Your task to perform on an android device: turn off picture-in-picture Image 0: 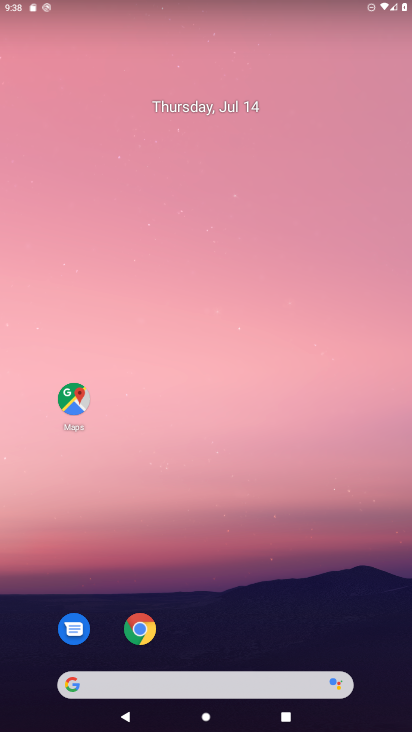
Step 0: drag from (256, 645) to (294, 67)
Your task to perform on an android device: turn off picture-in-picture Image 1: 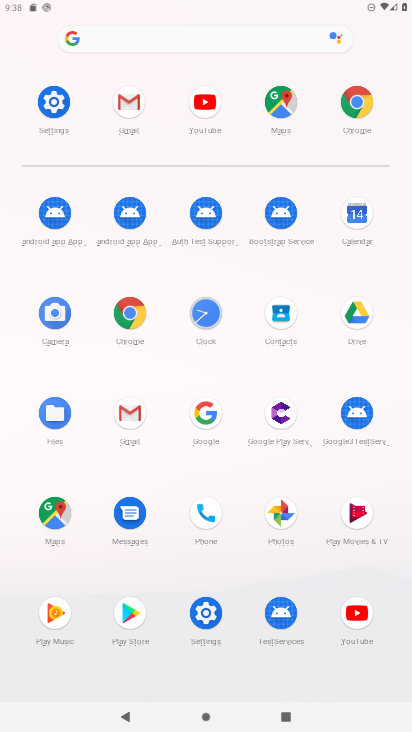
Step 1: click (139, 303)
Your task to perform on an android device: turn off picture-in-picture Image 2: 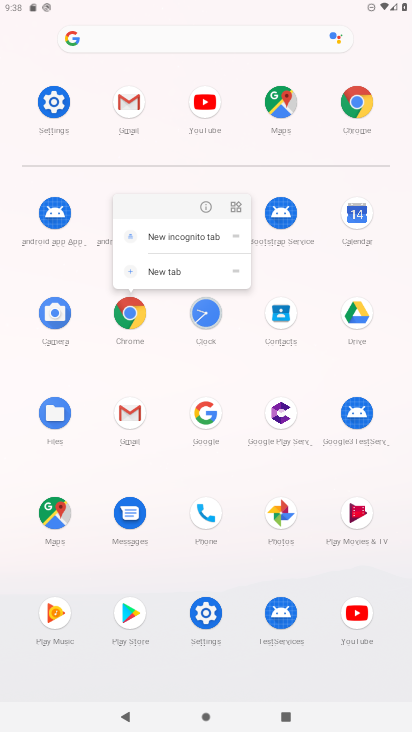
Step 2: click (206, 199)
Your task to perform on an android device: turn off picture-in-picture Image 3: 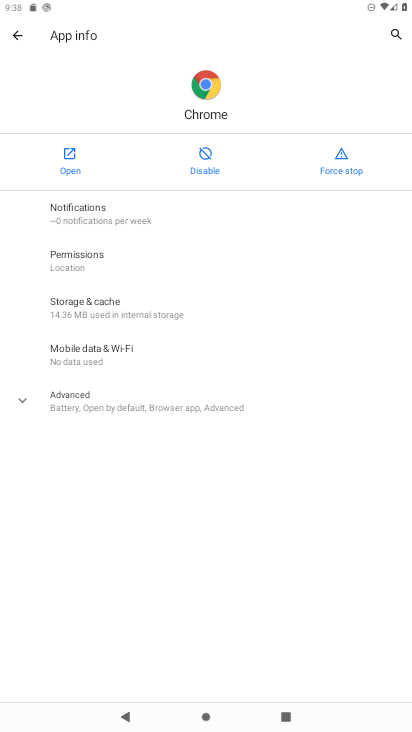
Step 3: click (68, 394)
Your task to perform on an android device: turn off picture-in-picture Image 4: 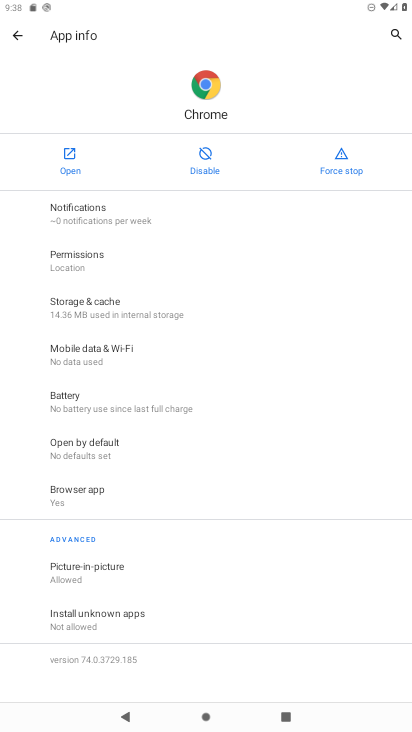
Step 4: click (112, 566)
Your task to perform on an android device: turn off picture-in-picture Image 5: 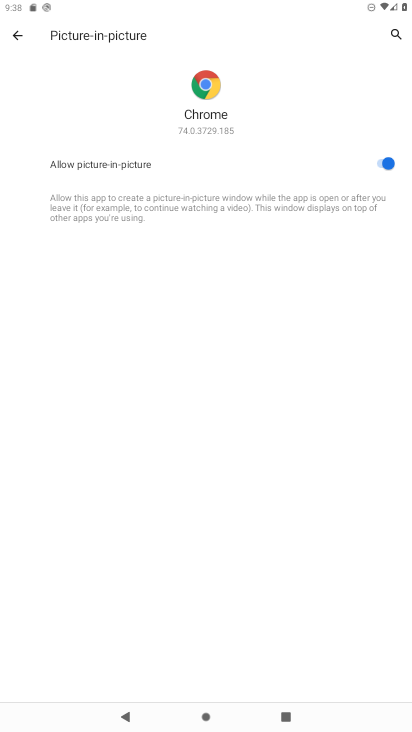
Step 5: click (355, 170)
Your task to perform on an android device: turn off picture-in-picture Image 6: 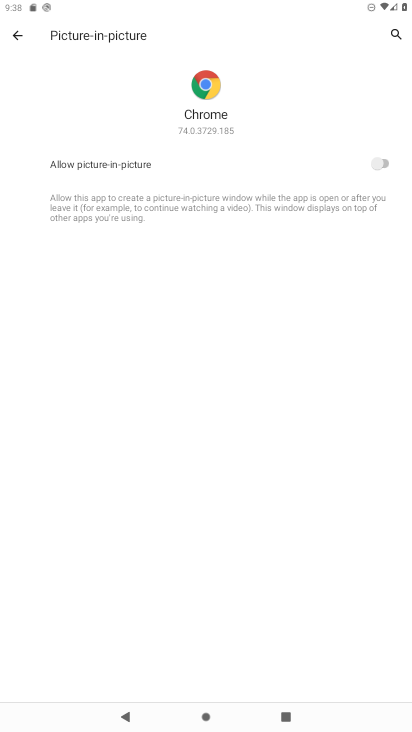
Step 6: task complete